Your task to perform on an android device: stop showing notifications on the lock screen Image 0: 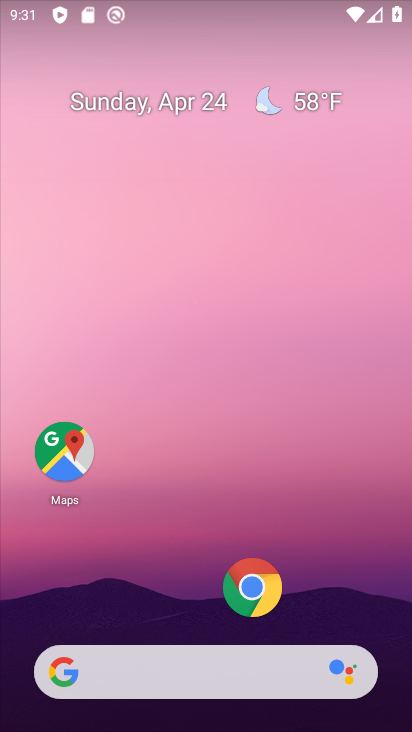
Step 0: drag from (130, 634) to (256, 48)
Your task to perform on an android device: stop showing notifications on the lock screen Image 1: 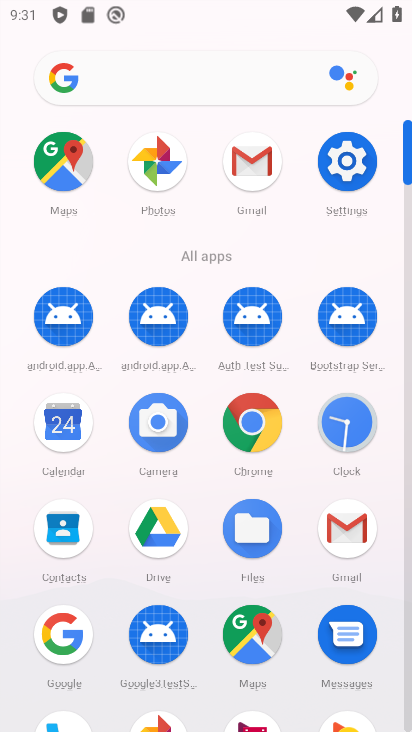
Step 1: click (351, 166)
Your task to perform on an android device: stop showing notifications on the lock screen Image 2: 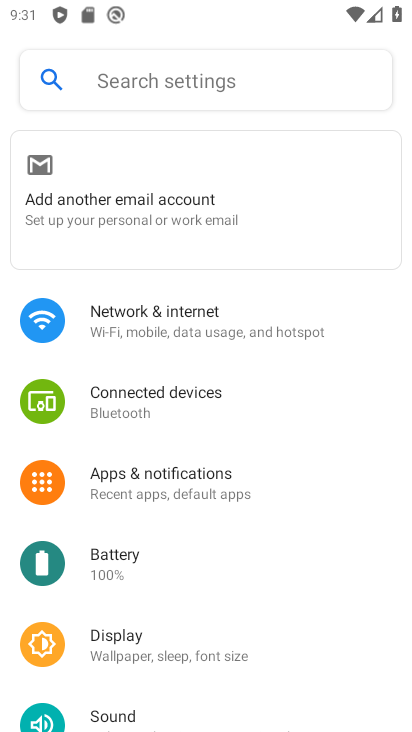
Step 2: click (145, 479)
Your task to perform on an android device: stop showing notifications on the lock screen Image 3: 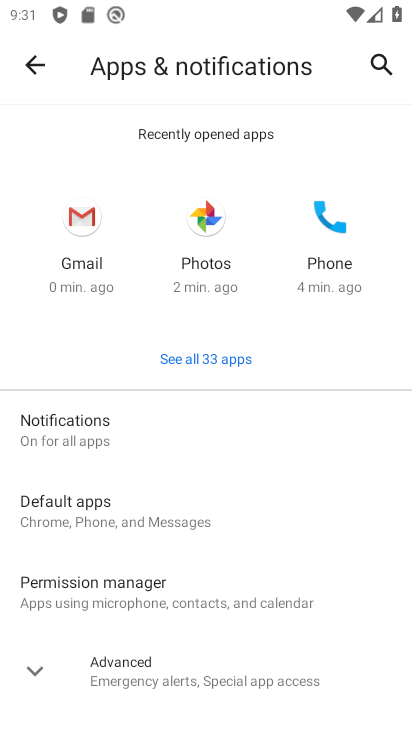
Step 3: click (151, 430)
Your task to perform on an android device: stop showing notifications on the lock screen Image 4: 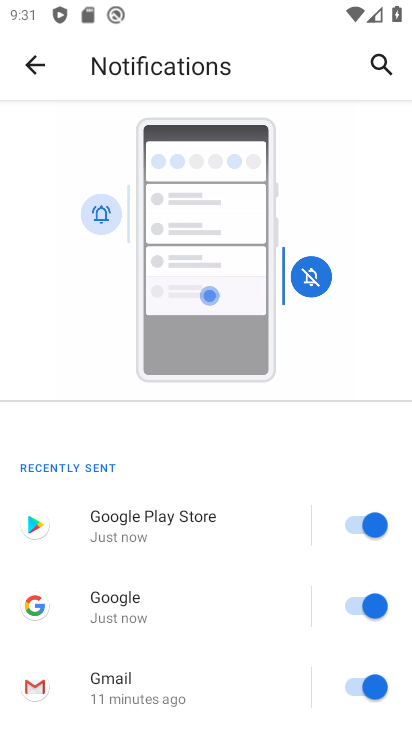
Step 4: drag from (171, 656) to (289, 161)
Your task to perform on an android device: stop showing notifications on the lock screen Image 5: 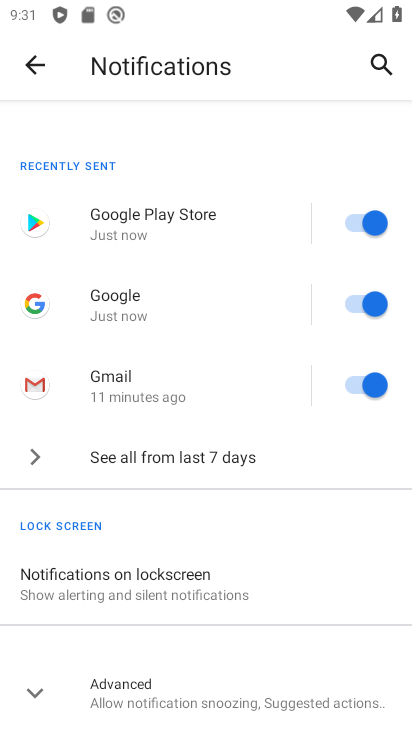
Step 5: click (204, 603)
Your task to perform on an android device: stop showing notifications on the lock screen Image 6: 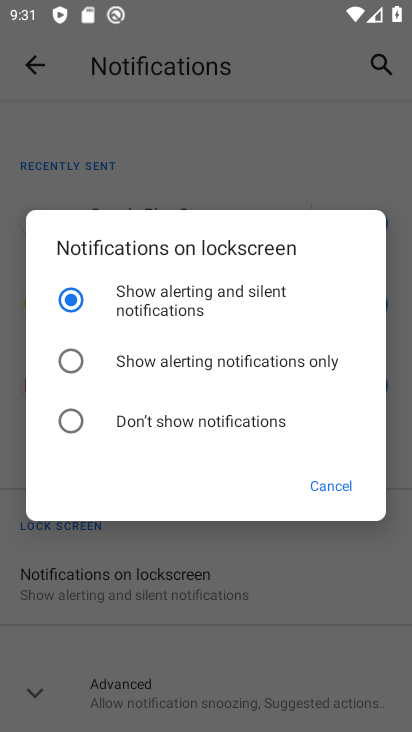
Step 6: click (140, 420)
Your task to perform on an android device: stop showing notifications on the lock screen Image 7: 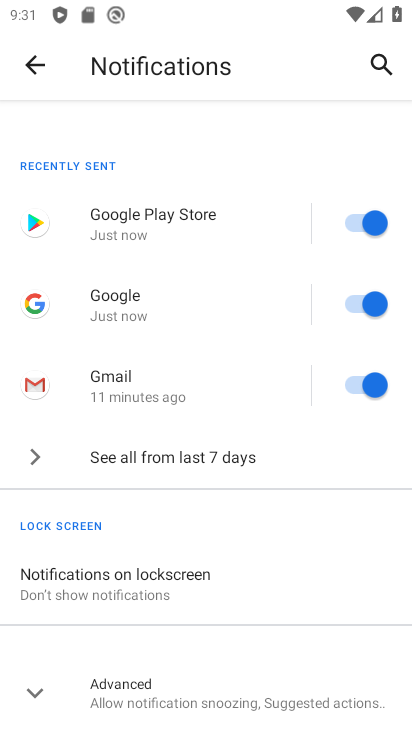
Step 7: task complete